Your task to perform on an android device: What's on my calendar today? Image 0: 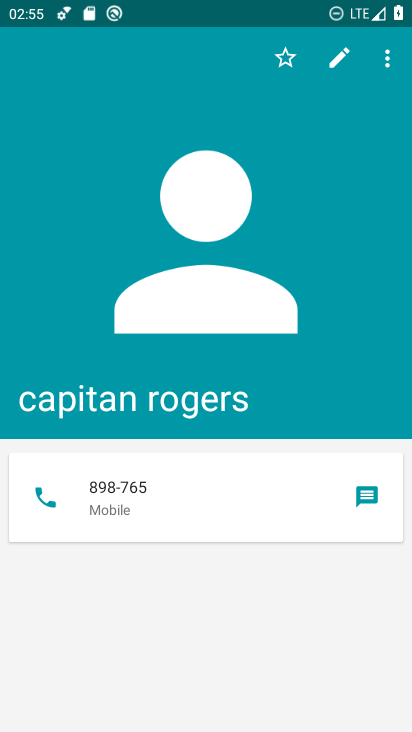
Step 0: press home button
Your task to perform on an android device: What's on my calendar today? Image 1: 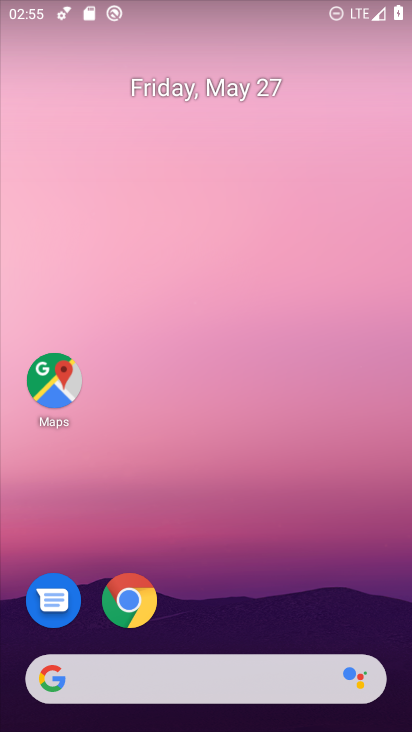
Step 1: drag from (206, 727) to (207, 119)
Your task to perform on an android device: What's on my calendar today? Image 2: 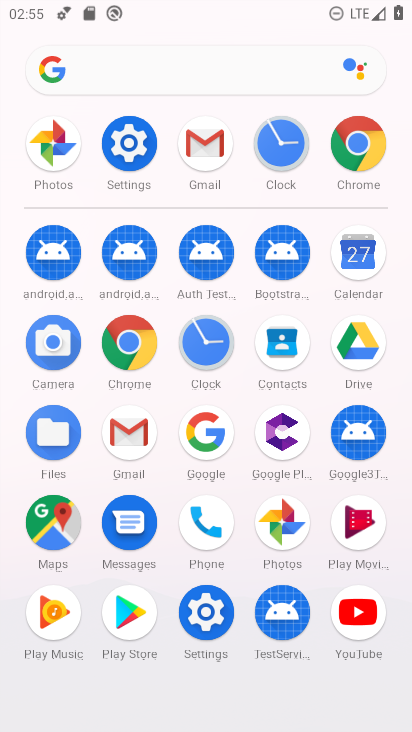
Step 2: click (367, 263)
Your task to perform on an android device: What's on my calendar today? Image 3: 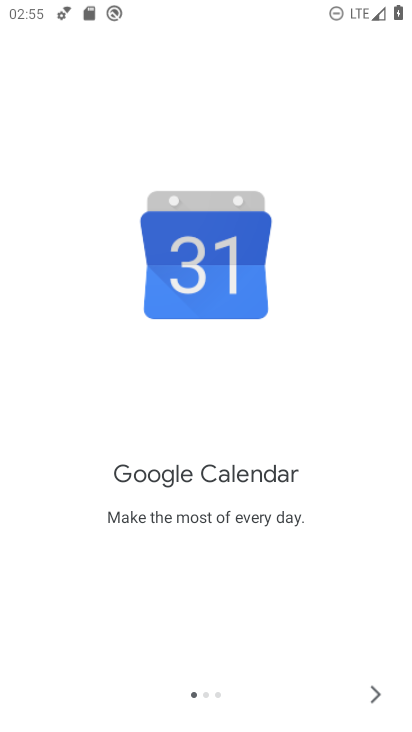
Step 3: click (375, 690)
Your task to perform on an android device: What's on my calendar today? Image 4: 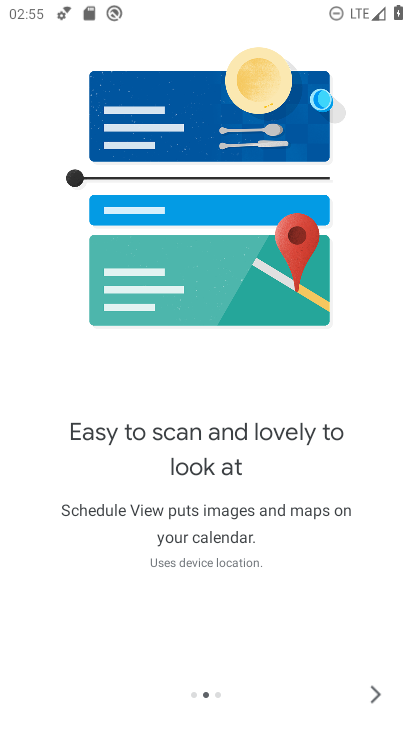
Step 4: click (375, 690)
Your task to perform on an android device: What's on my calendar today? Image 5: 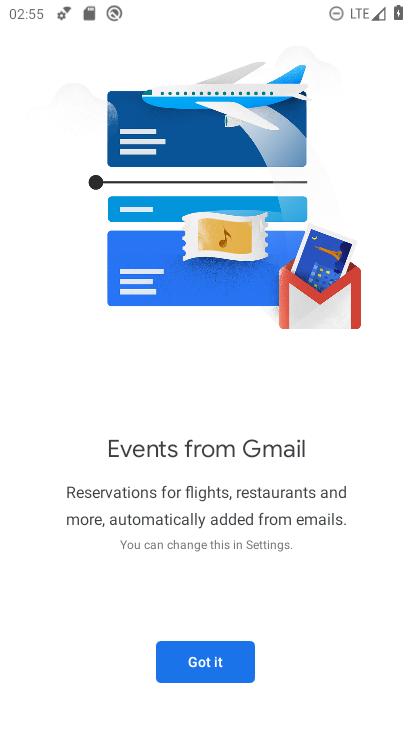
Step 5: click (197, 660)
Your task to perform on an android device: What's on my calendar today? Image 6: 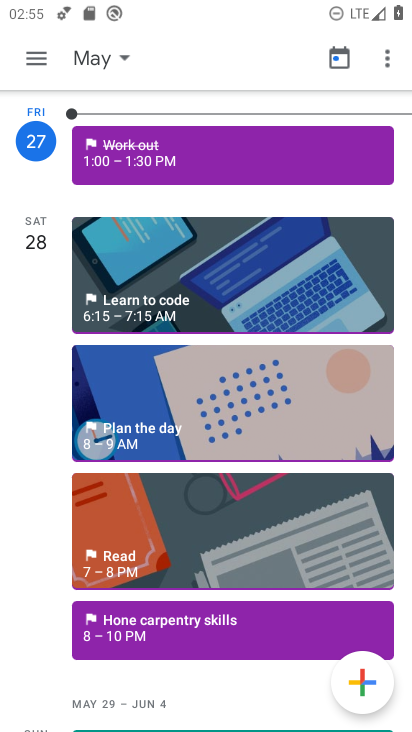
Step 6: click (121, 58)
Your task to perform on an android device: What's on my calendar today? Image 7: 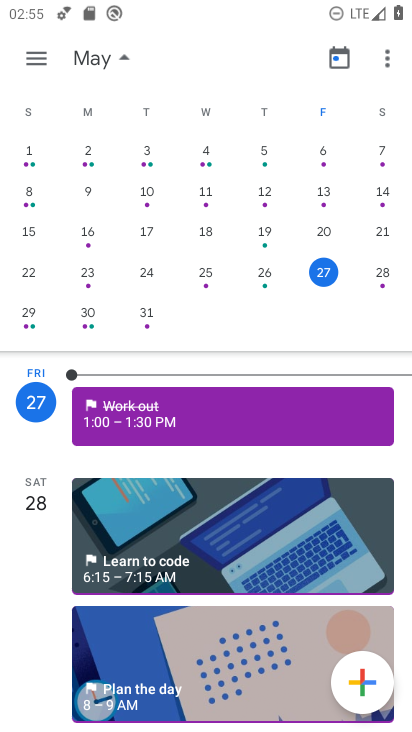
Step 7: click (321, 273)
Your task to perform on an android device: What's on my calendar today? Image 8: 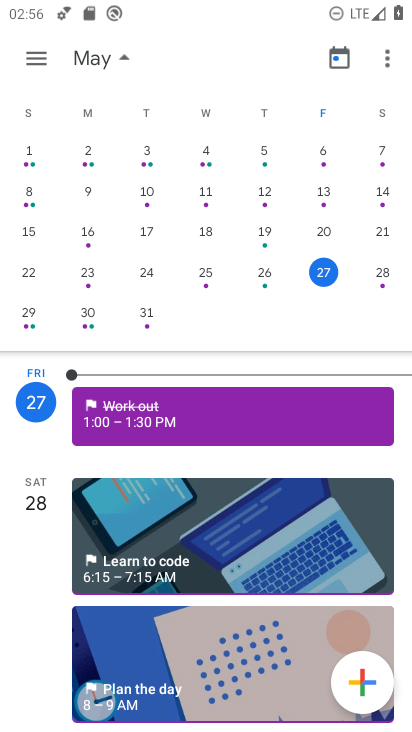
Step 8: click (121, 54)
Your task to perform on an android device: What's on my calendar today? Image 9: 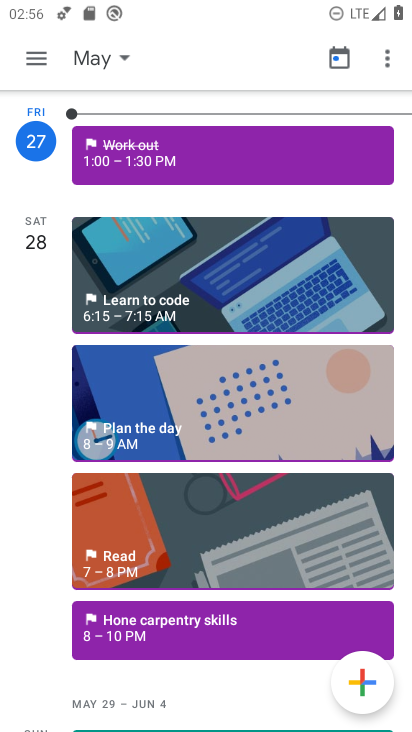
Step 9: task complete